Your task to perform on an android device: turn on the 12-hour format for clock Image 0: 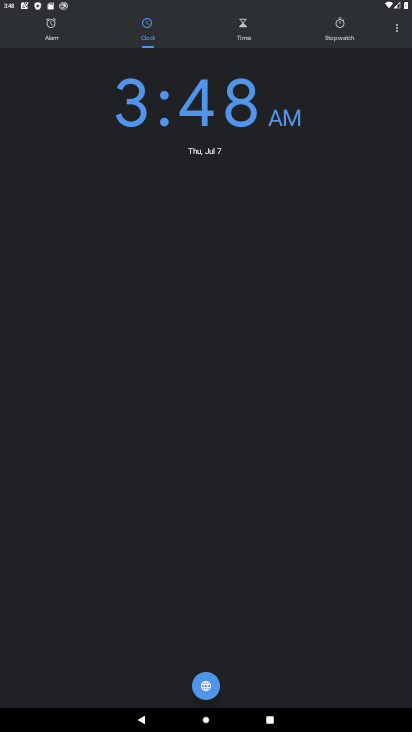
Step 0: press home button
Your task to perform on an android device: turn on the 12-hour format for clock Image 1: 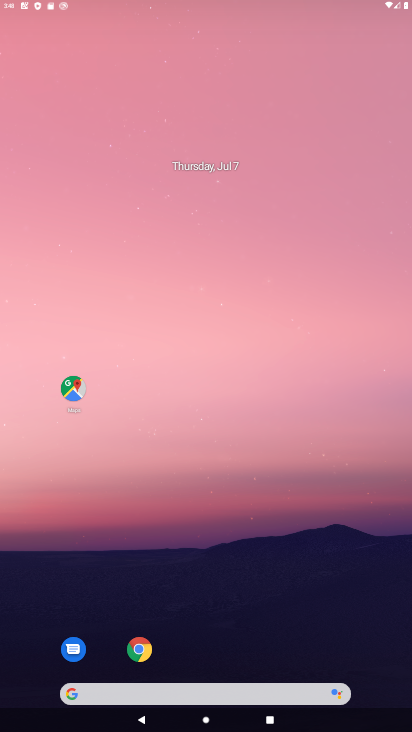
Step 1: drag from (347, 655) to (273, 83)
Your task to perform on an android device: turn on the 12-hour format for clock Image 2: 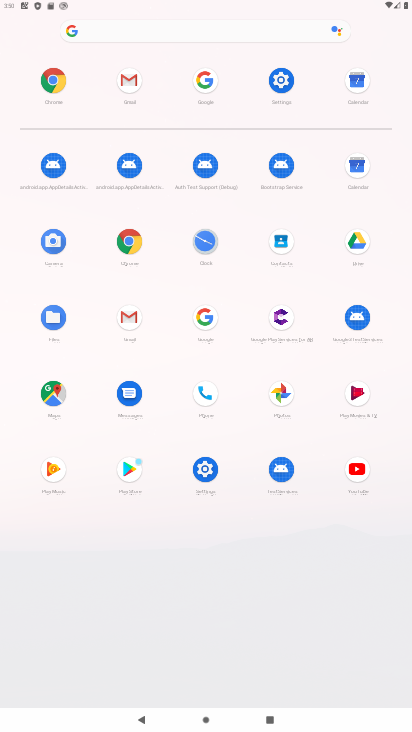
Step 2: click (205, 235)
Your task to perform on an android device: turn on the 12-hour format for clock Image 3: 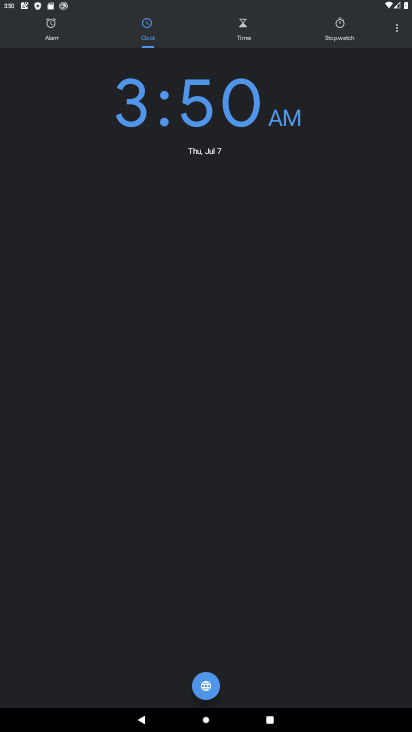
Step 3: click (393, 26)
Your task to perform on an android device: turn on the 12-hour format for clock Image 4: 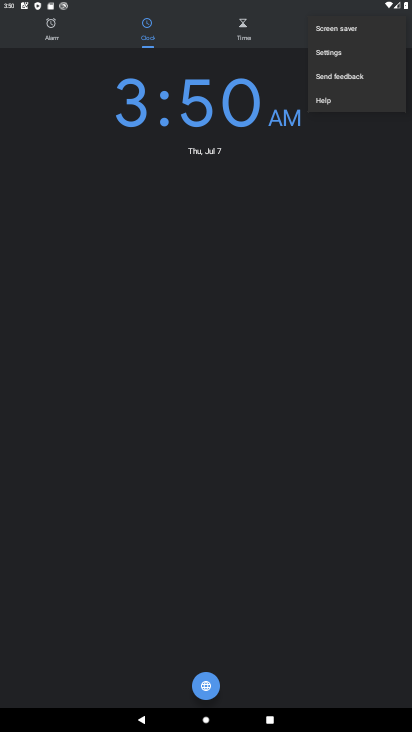
Step 4: click (359, 55)
Your task to perform on an android device: turn on the 12-hour format for clock Image 5: 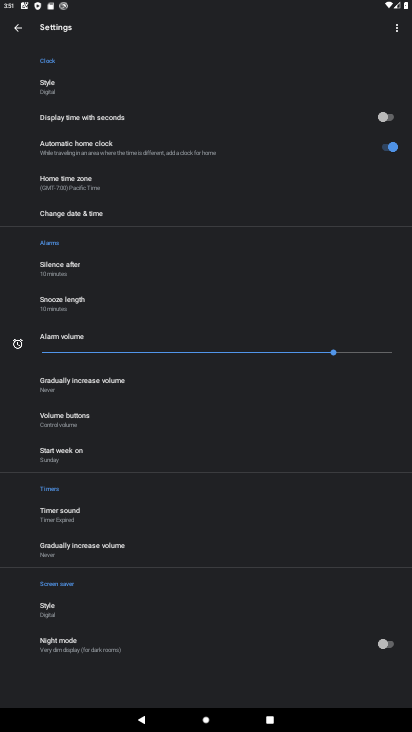
Step 5: click (112, 214)
Your task to perform on an android device: turn on the 12-hour format for clock Image 6: 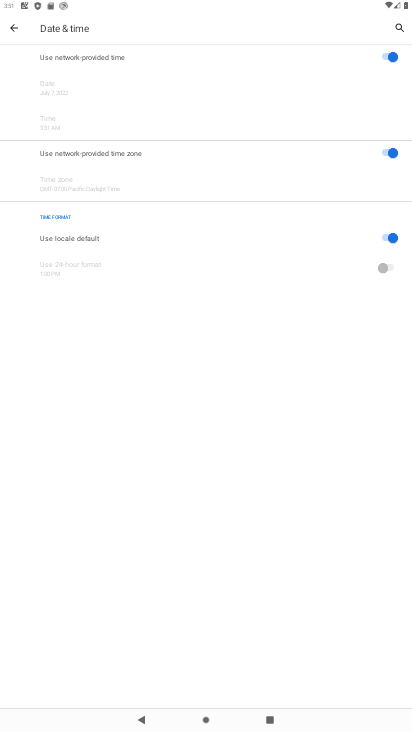
Step 6: task complete